Your task to perform on an android device: refresh tabs in the chrome app Image 0: 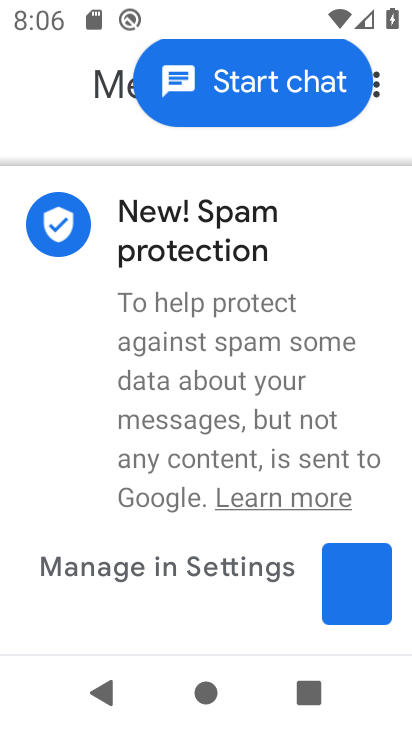
Step 0: press home button
Your task to perform on an android device: refresh tabs in the chrome app Image 1: 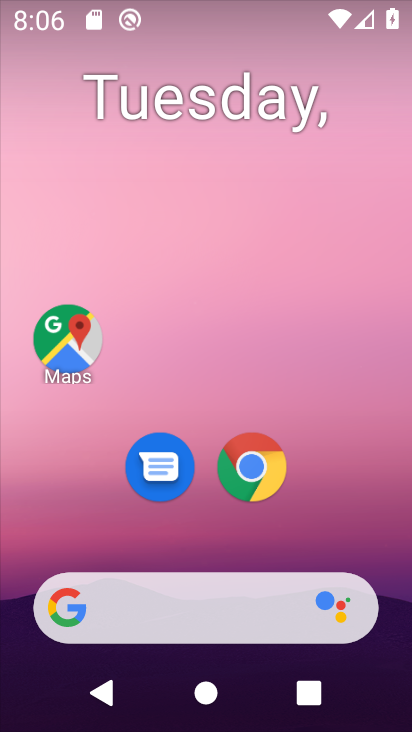
Step 1: click (254, 468)
Your task to perform on an android device: refresh tabs in the chrome app Image 2: 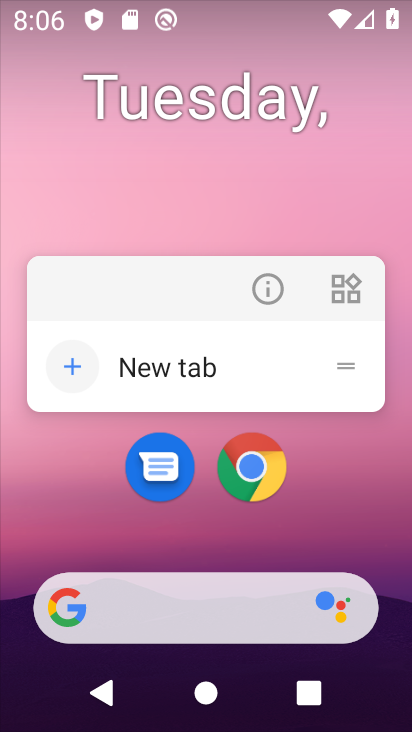
Step 2: click (254, 468)
Your task to perform on an android device: refresh tabs in the chrome app Image 3: 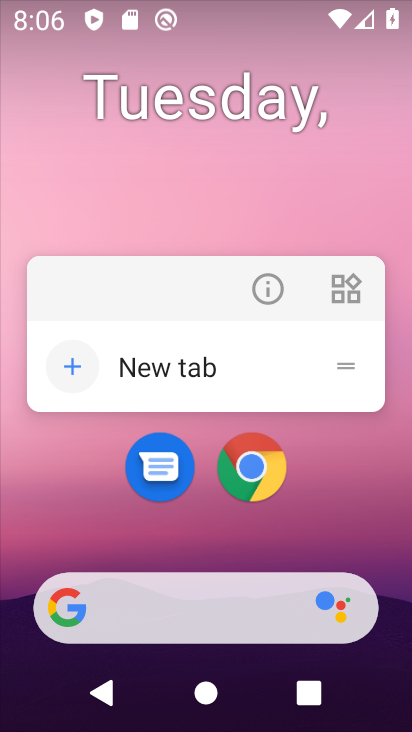
Step 3: click (254, 468)
Your task to perform on an android device: refresh tabs in the chrome app Image 4: 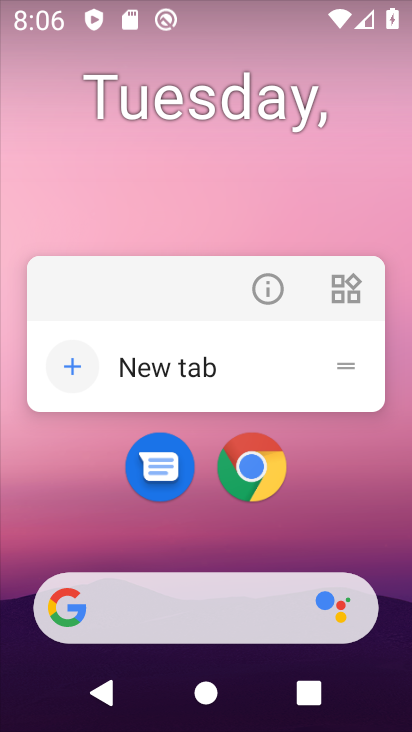
Step 4: click (254, 468)
Your task to perform on an android device: refresh tabs in the chrome app Image 5: 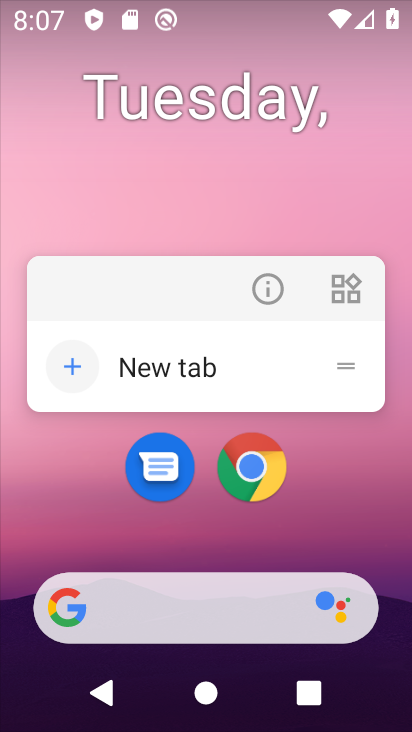
Step 5: click (74, 502)
Your task to perform on an android device: refresh tabs in the chrome app Image 6: 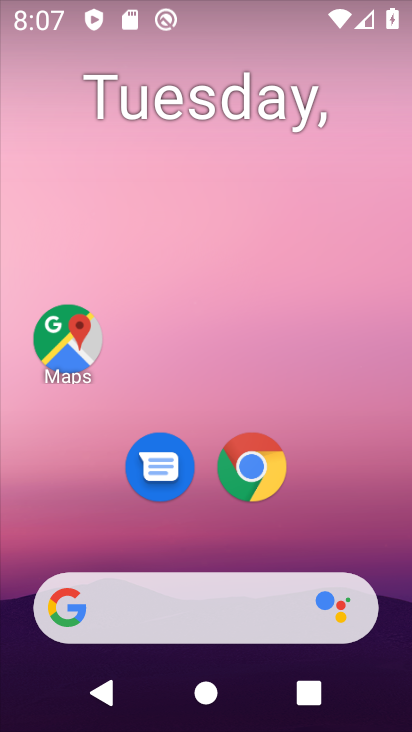
Step 6: click (250, 462)
Your task to perform on an android device: refresh tabs in the chrome app Image 7: 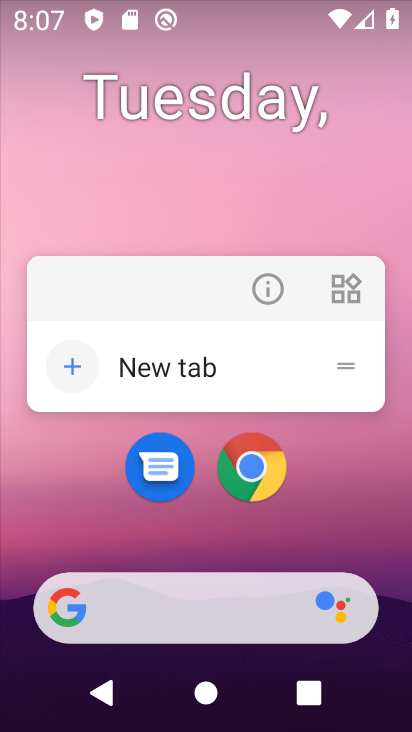
Step 7: click (250, 463)
Your task to perform on an android device: refresh tabs in the chrome app Image 8: 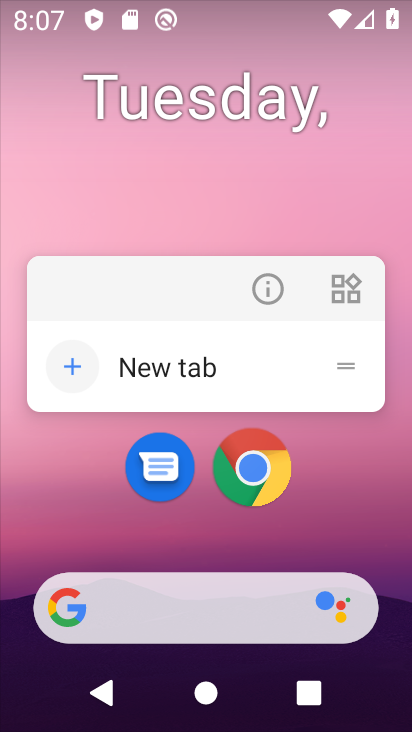
Step 8: click (250, 463)
Your task to perform on an android device: refresh tabs in the chrome app Image 9: 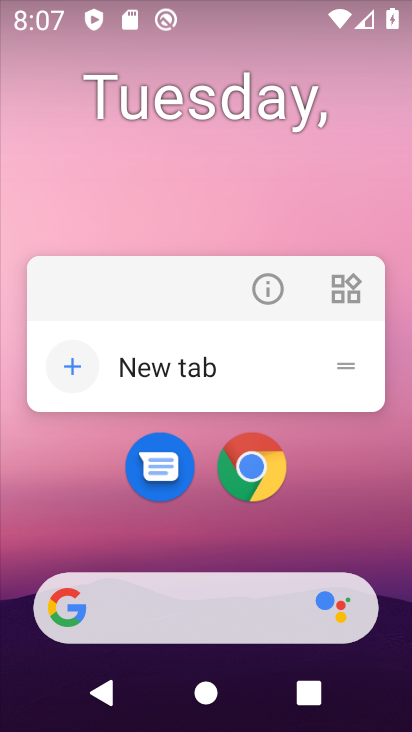
Step 9: click (208, 173)
Your task to perform on an android device: refresh tabs in the chrome app Image 10: 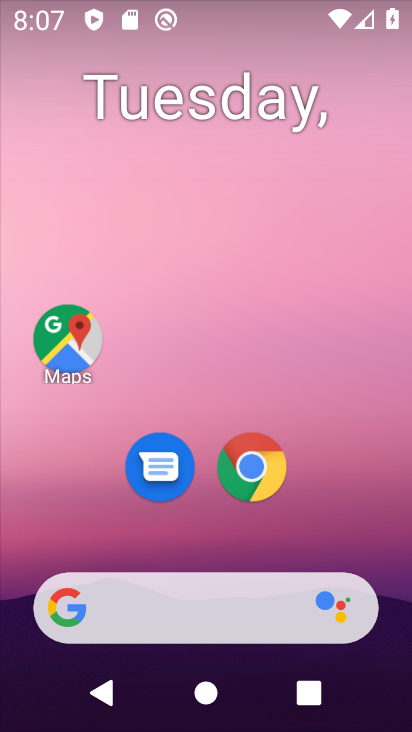
Step 10: click (246, 471)
Your task to perform on an android device: refresh tabs in the chrome app Image 11: 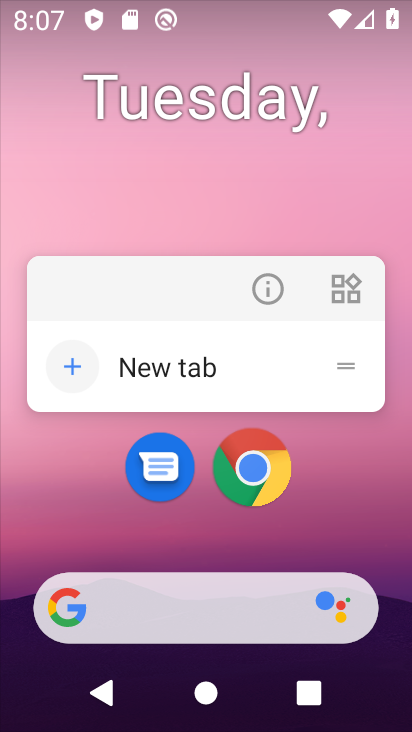
Step 11: click (339, 495)
Your task to perform on an android device: refresh tabs in the chrome app Image 12: 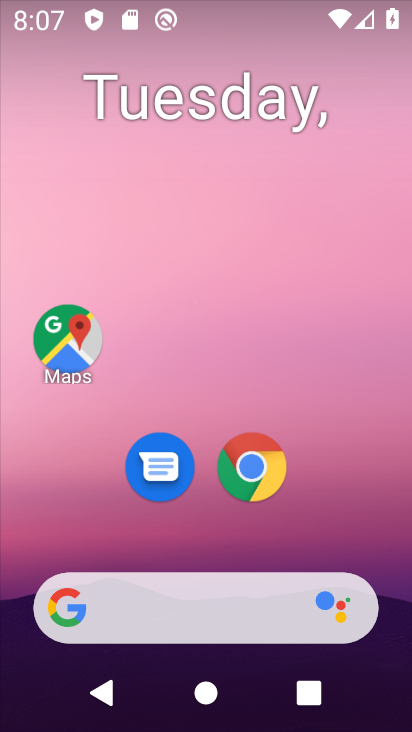
Step 12: click (254, 471)
Your task to perform on an android device: refresh tabs in the chrome app Image 13: 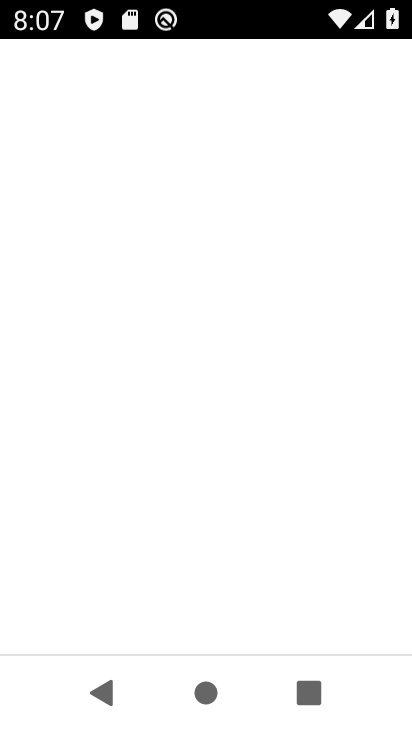
Step 13: click (254, 471)
Your task to perform on an android device: refresh tabs in the chrome app Image 14: 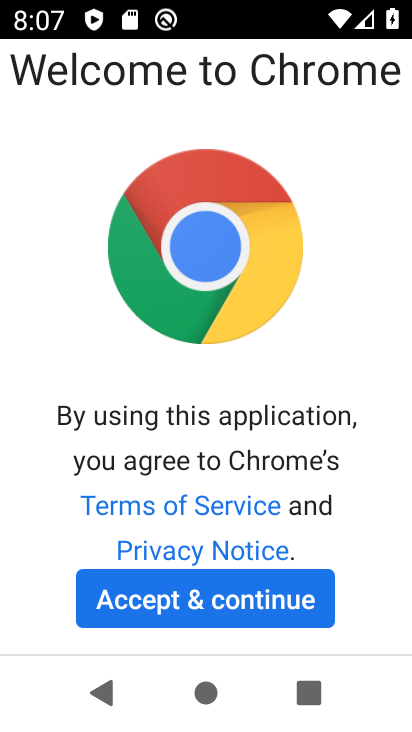
Step 14: click (189, 587)
Your task to perform on an android device: refresh tabs in the chrome app Image 15: 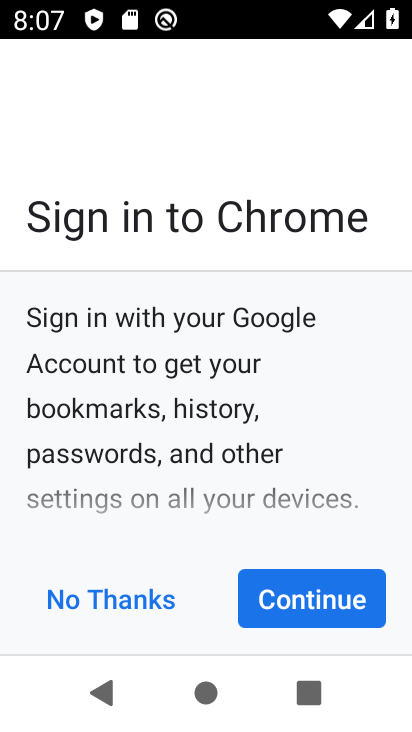
Step 15: click (297, 601)
Your task to perform on an android device: refresh tabs in the chrome app Image 16: 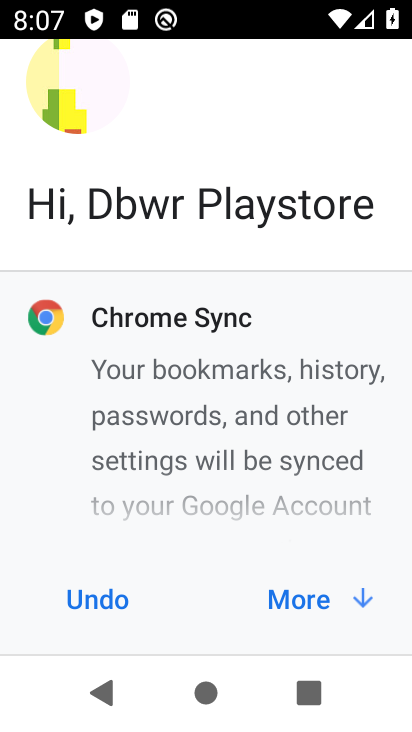
Step 16: click (297, 601)
Your task to perform on an android device: refresh tabs in the chrome app Image 17: 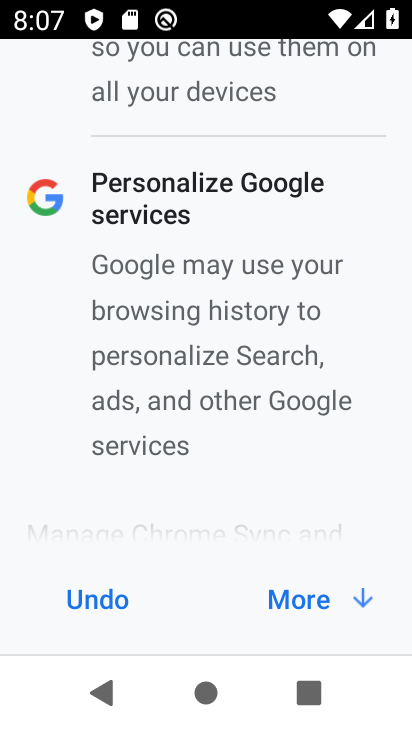
Step 17: click (299, 601)
Your task to perform on an android device: refresh tabs in the chrome app Image 18: 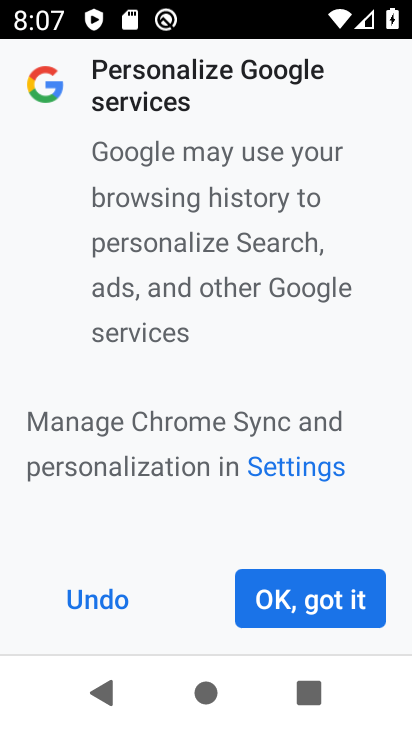
Step 18: click (299, 602)
Your task to perform on an android device: refresh tabs in the chrome app Image 19: 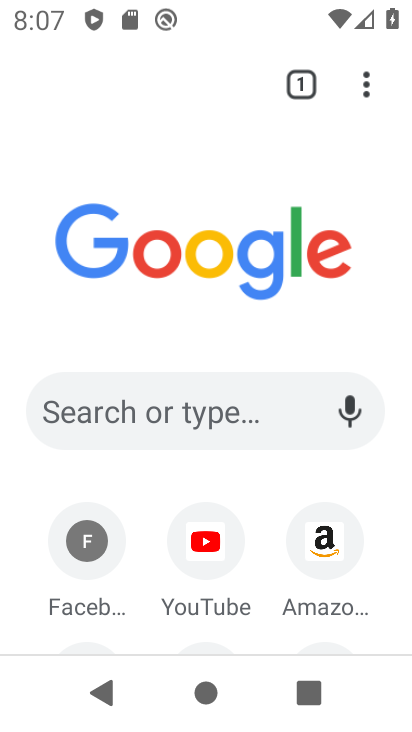
Step 19: click (362, 75)
Your task to perform on an android device: refresh tabs in the chrome app Image 20: 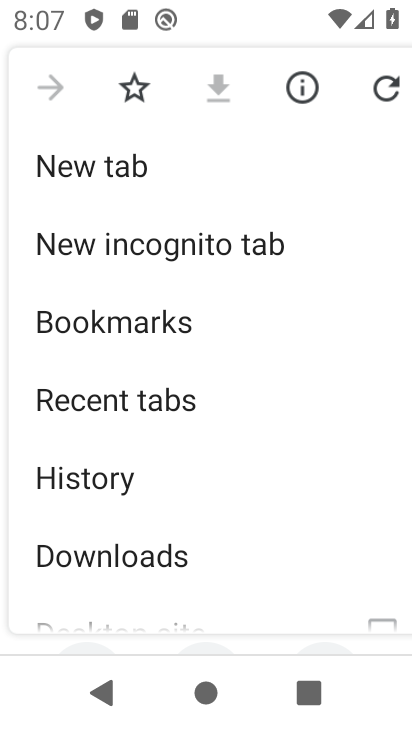
Step 20: click (391, 92)
Your task to perform on an android device: refresh tabs in the chrome app Image 21: 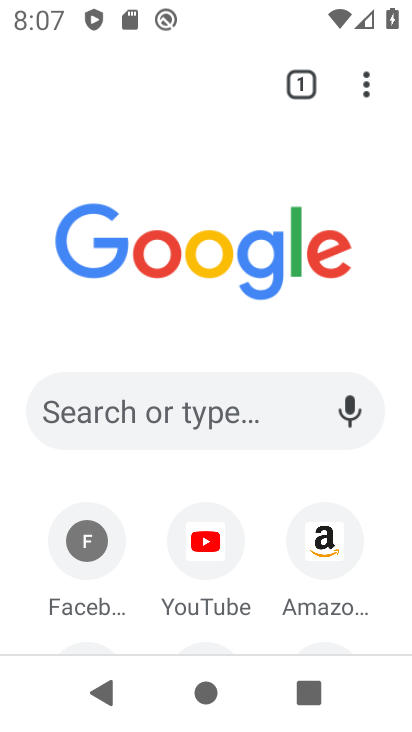
Step 21: task complete